Your task to perform on an android device: Search for "duracell triple a" on walmart, select the first entry, and add it to the cart. Image 0: 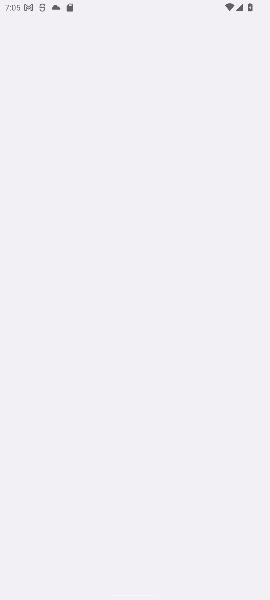
Step 0: press home button
Your task to perform on an android device: Search for "duracell triple a" on walmart, select the first entry, and add it to the cart. Image 1: 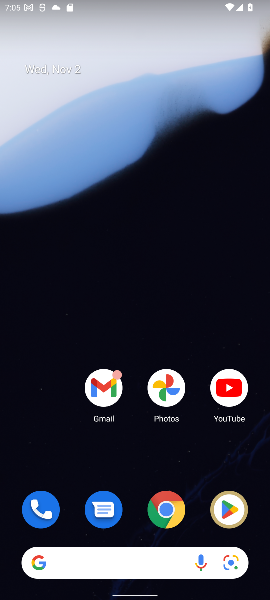
Step 1: click (105, 570)
Your task to perform on an android device: Search for "duracell triple a" on walmart, select the first entry, and add it to the cart. Image 2: 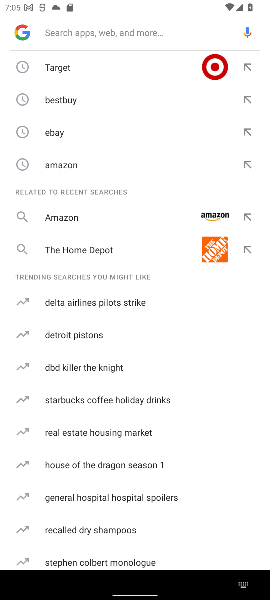
Step 2: type "walmart"
Your task to perform on an android device: Search for "duracell triple a" on walmart, select the first entry, and add it to the cart. Image 3: 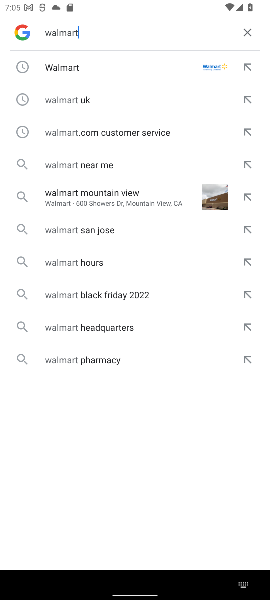
Step 3: click (57, 62)
Your task to perform on an android device: Search for "duracell triple a" on walmart, select the first entry, and add it to the cart. Image 4: 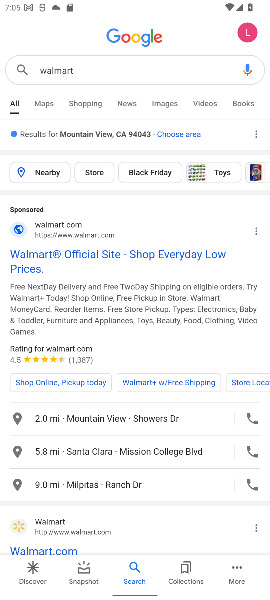
Step 4: drag from (160, 502) to (155, 420)
Your task to perform on an android device: Search for "duracell triple a" on walmart, select the first entry, and add it to the cart. Image 5: 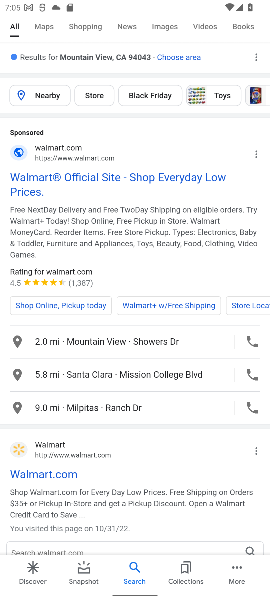
Step 5: click (51, 473)
Your task to perform on an android device: Search for "duracell triple a" on walmart, select the first entry, and add it to the cart. Image 6: 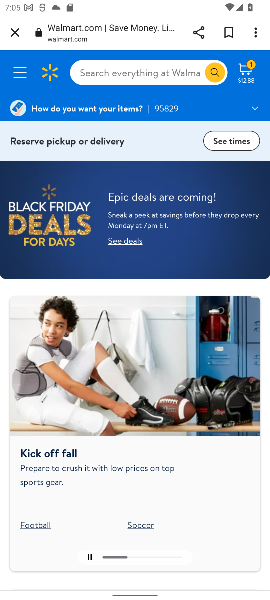
Step 6: click (118, 68)
Your task to perform on an android device: Search for "duracell triple a" on walmart, select the first entry, and add it to the cart. Image 7: 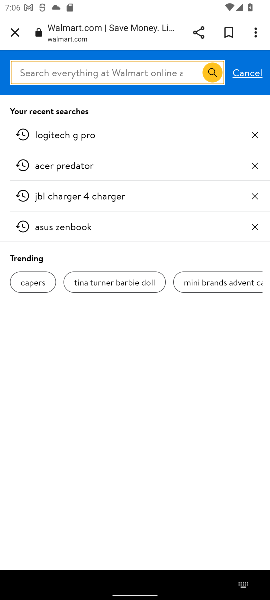
Step 7: type "duracell triple a"
Your task to perform on an android device: Search for "duracell triple a" on walmart, select the first entry, and add it to the cart. Image 8: 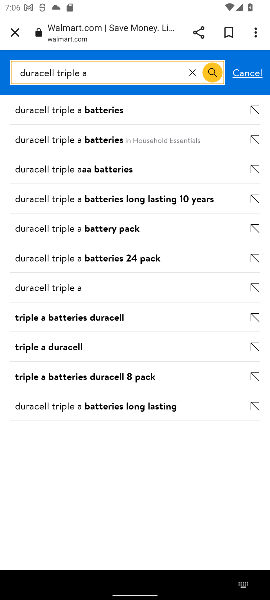
Step 8: click (58, 282)
Your task to perform on an android device: Search for "duracell triple a" on walmart, select the first entry, and add it to the cart. Image 9: 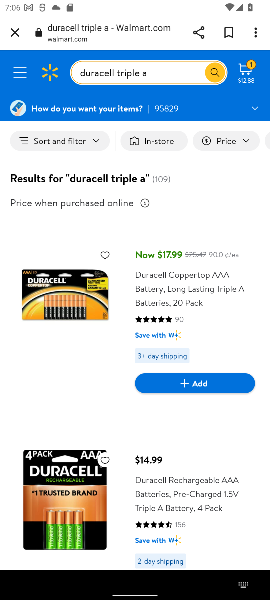
Step 9: click (184, 386)
Your task to perform on an android device: Search for "duracell triple a" on walmart, select the first entry, and add it to the cart. Image 10: 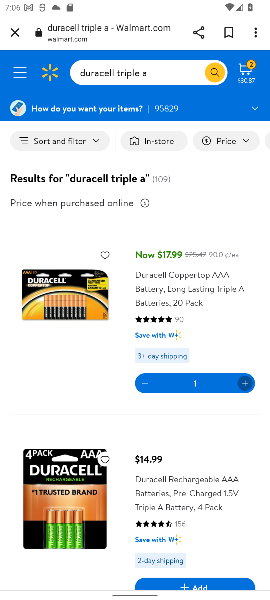
Step 10: task complete